Your task to perform on an android device: Open Google Chrome Image 0: 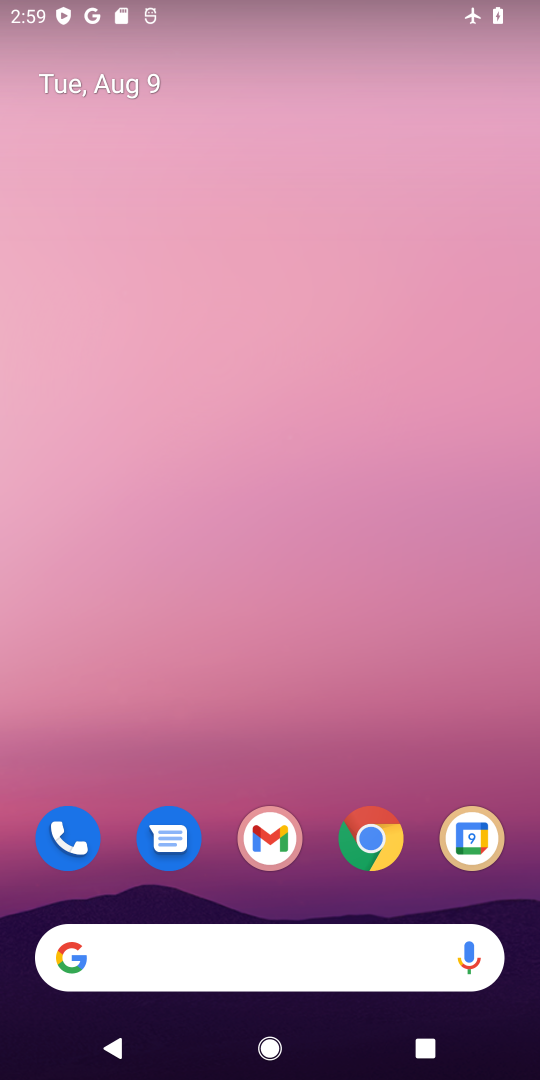
Step 0: drag from (265, 750) to (302, 405)
Your task to perform on an android device: Open Google Chrome Image 1: 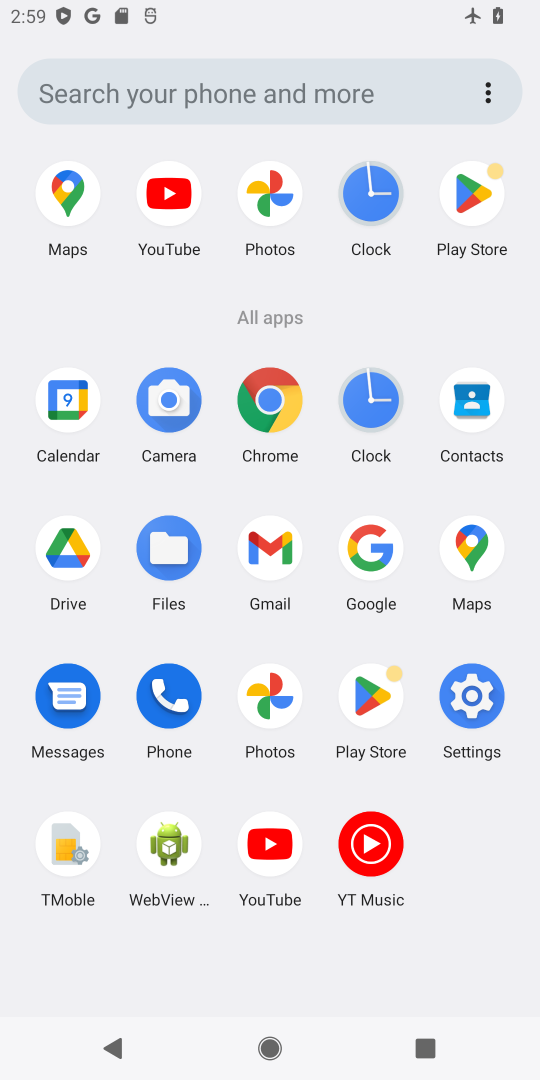
Step 1: click (268, 397)
Your task to perform on an android device: Open Google Chrome Image 2: 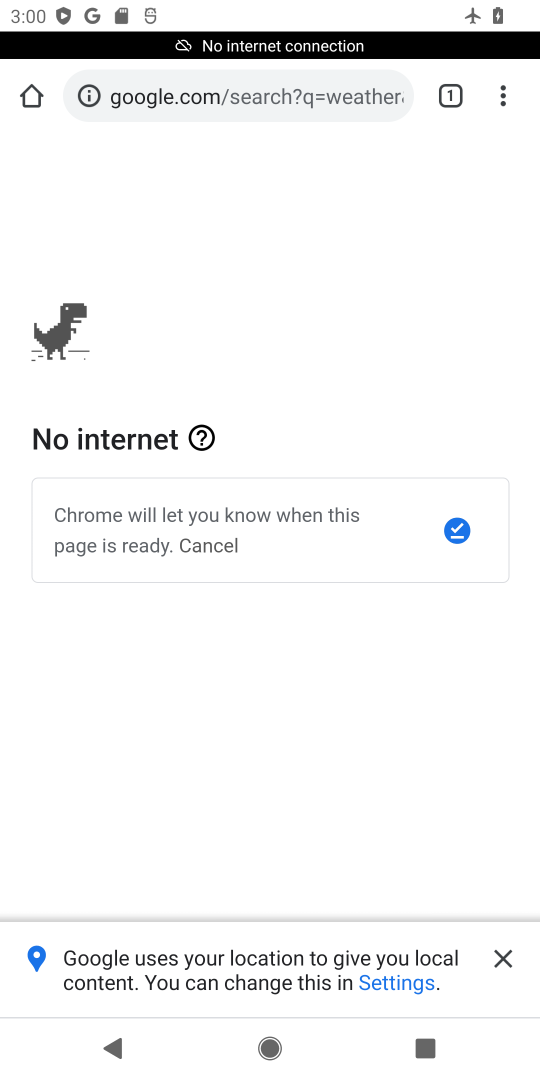
Step 2: task complete